Your task to perform on an android device: turn off smart reply in the gmail app Image 0: 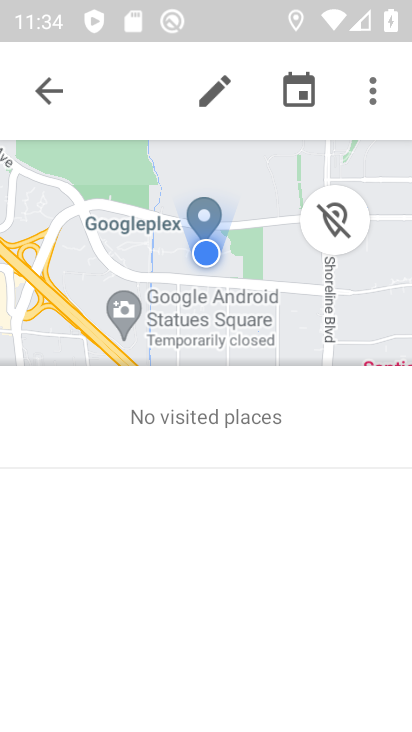
Step 0: press home button
Your task to perform on an android device: turn off smart reply in the gmail app Image 1: 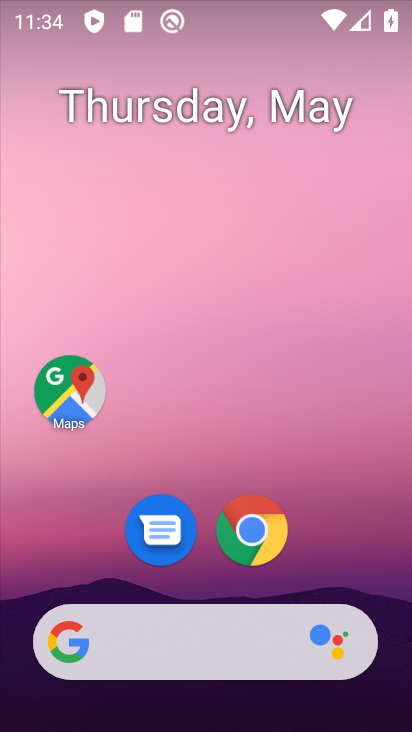
Step 1: drag from (158, 599) to (213, 241)
Your task to perform on an android device: turn off smart reply in the gmail app Image 2: 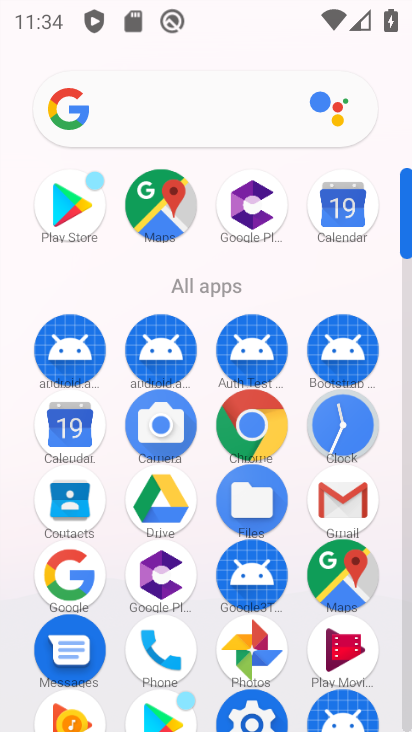
Step 2: click (367, 495)
Your task to perform on an android device: turn off smart reply in the gmail app Image 3: 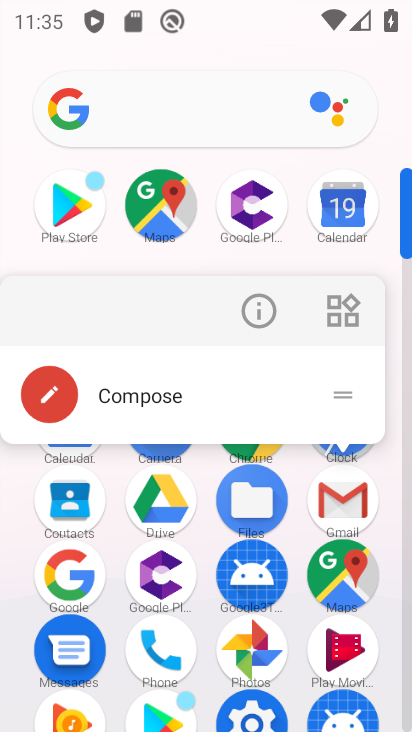
Step 3: click (392, 151)
Your task to perform on an android device: turn off smart reply in the gmail app Image 4: 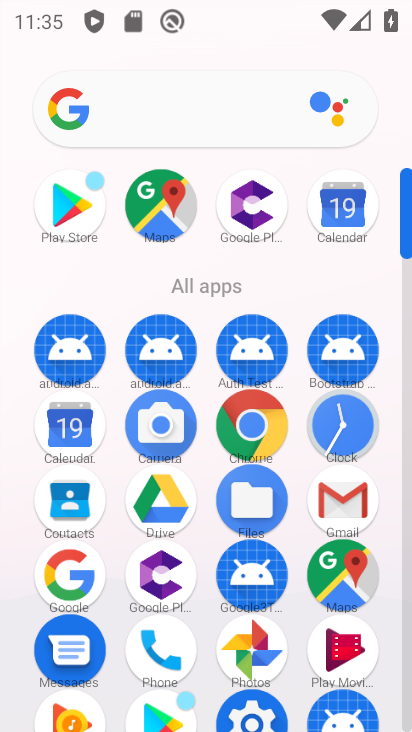
Step 4: click (354, 499)
Your task to perform on an android device: turn off smart reply in the gmail app Image 5: 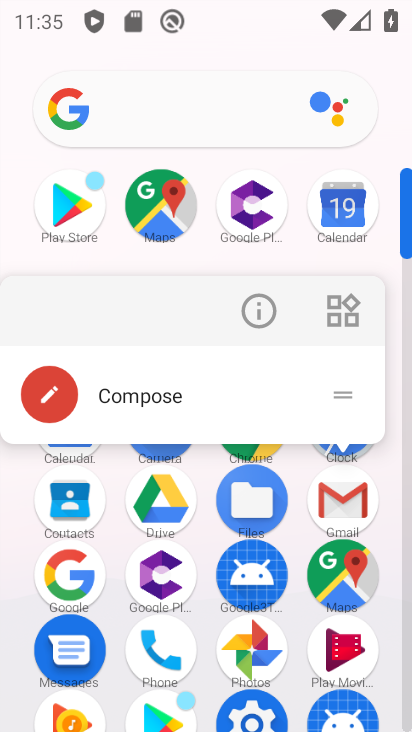
Step 5: click (354, 499)
Your task to perform on an android device: turn off smart reply in the gmail app Image 6: 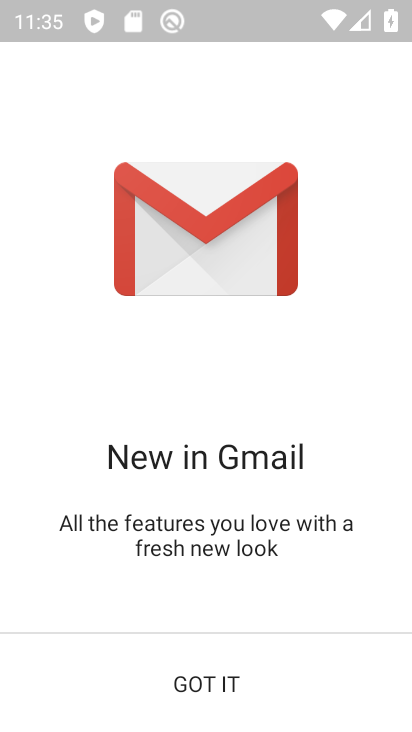
Step 6: click (207, 680)
Your task to perform on an android device: turn off smart reply in the gmail app Image 7: 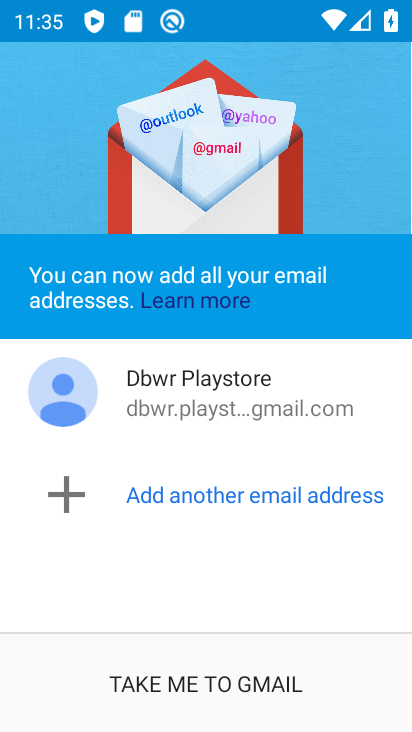
Step 7: click (207, 680)
Your task to perform on an android device: turn off smart reply in the gmail app Image 8: 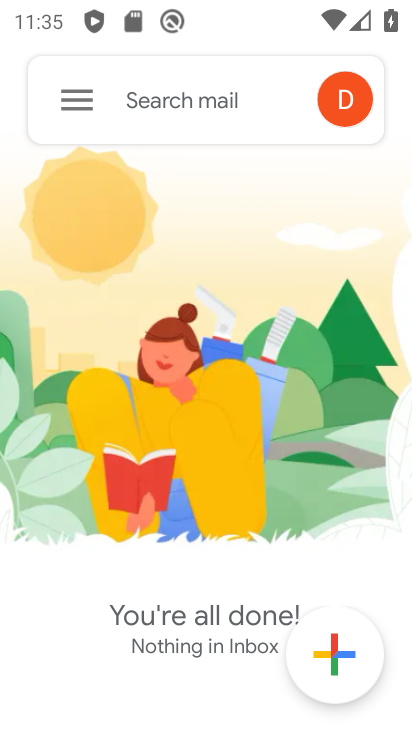
Step 8: click (71, 97)
Your task to perform on an android device: turn off smart reply in the gmail app Image 9: 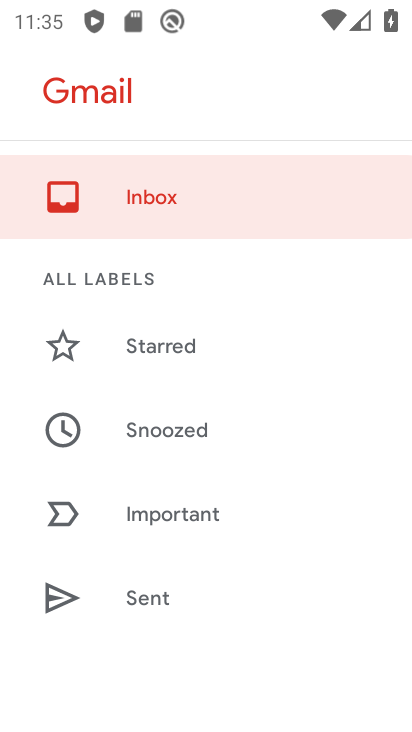
Step 9: drag from (173, 643) to (225, 256)
Your task to perform on an android device: turn off smart reply in the gmail app Image 10: 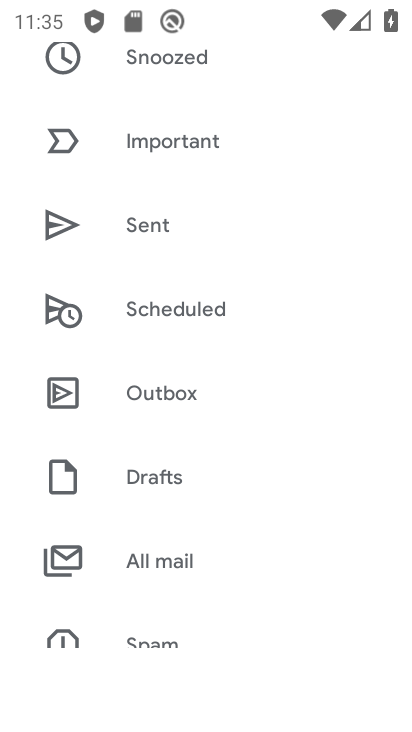
Step 10: drag from (187, 600) to (212, 316)
Your task to perform on an android device: turn off smart reply in the gmail app Image 11: 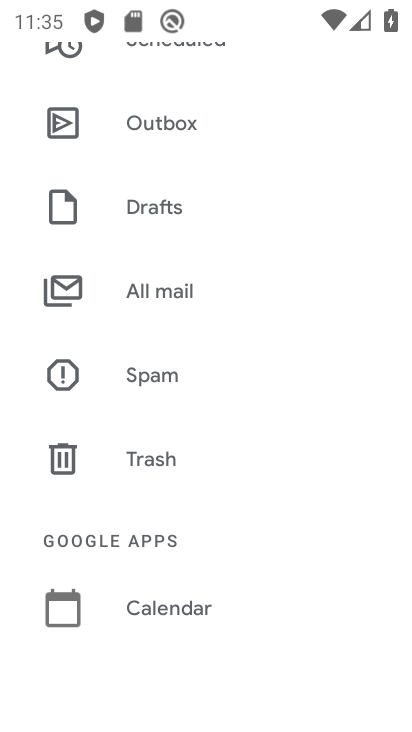
Step 11: drag from (154, 617) to (199, 370)
Your task to perform on an android device: turn off smart reply in the gmail app Image 12: 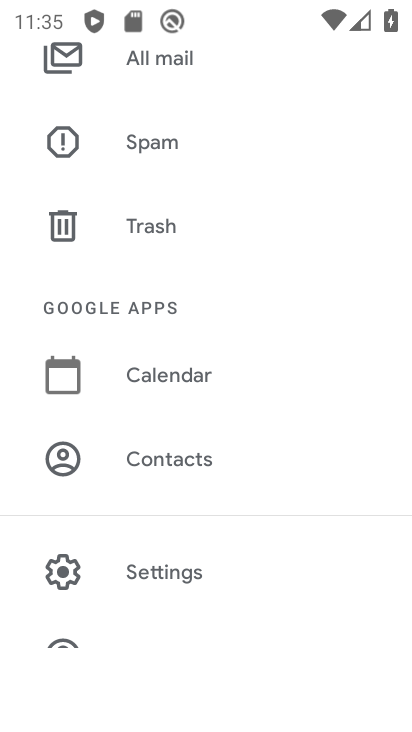
Step 12: click (158, 580)
Your task to perform on an android device: turn off smart reply in the gmail app Image 13: 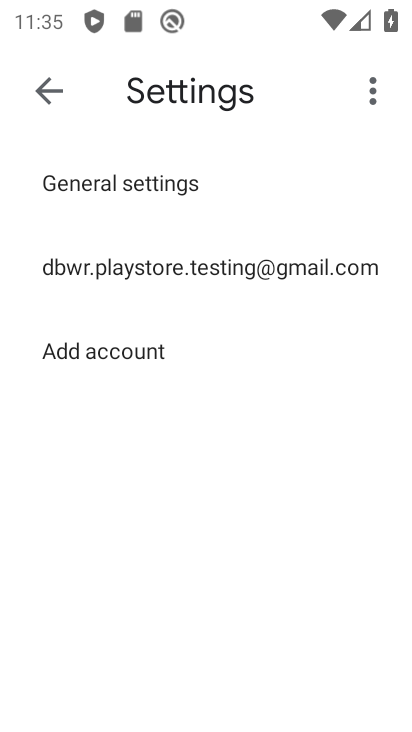
Step 13: click (170, 273)
Your task to perform on an android device: turn off smart reply in the gmail app Image 14: 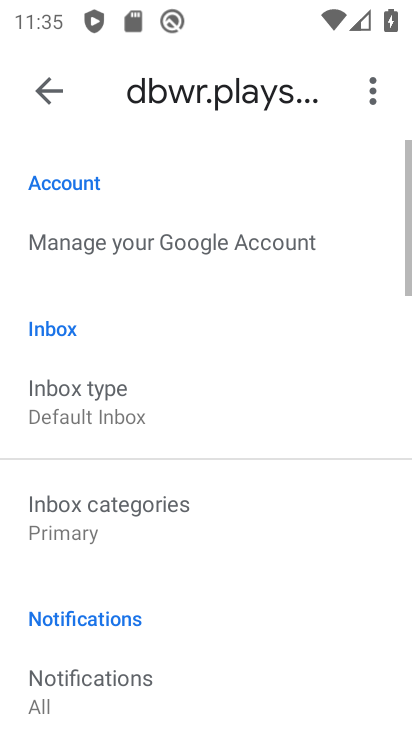
Step 14: drag from (218, 635) to (262, 266)
Your task to perform on an android device: turn off smart reply in the gmail app Image 15: 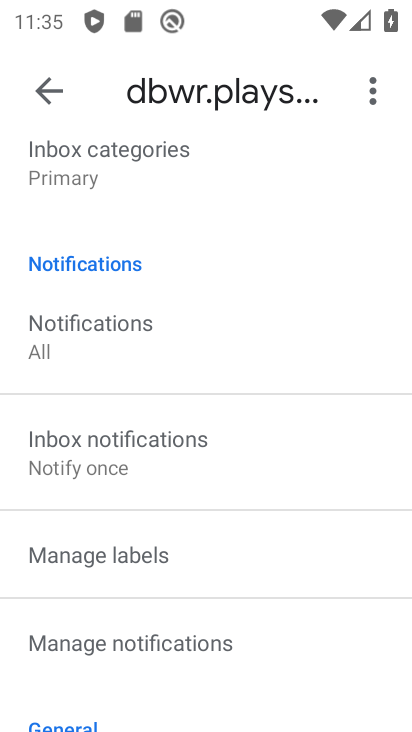
Step 15: drag from (247, 618) to (296, 313)
Your task to perform on an android device: turn off smart reply in the gmail app Image 16: 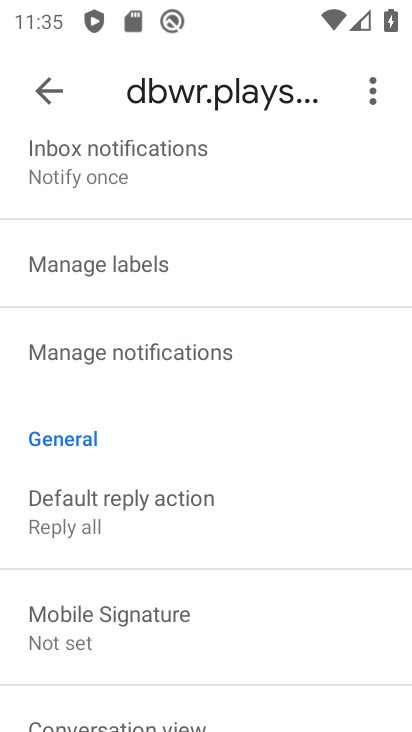
Step 16: drag from (269, 538) to (312, 337)
Your task to perform on an android device: turn off smart reply in the gmail app Image 17: 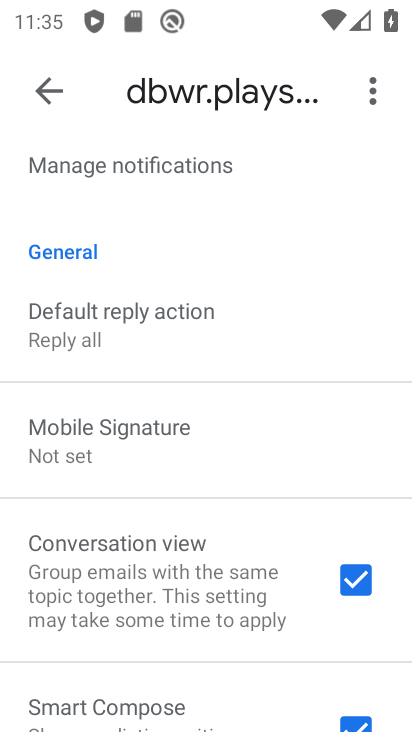
Step 17: drag from (310, 520) to (348, 350)
Your task to perform on an android device: turn off smart reply in the gmail app Image 18: 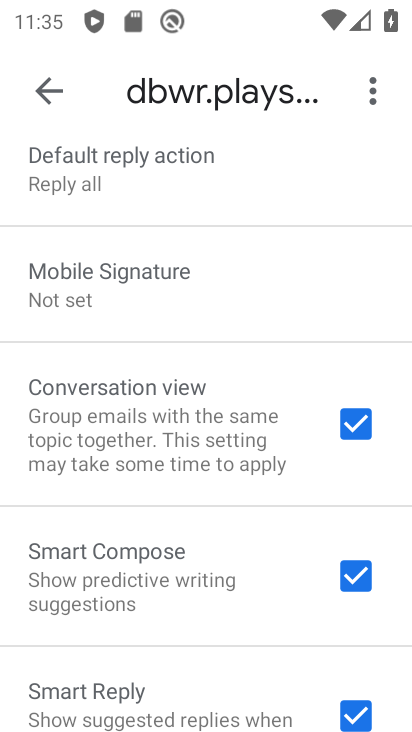
Step 18: drag from (283, 637) to (305, 327)
Your task to perform on an android device: turn off smart reply in the gmail app Image 19: 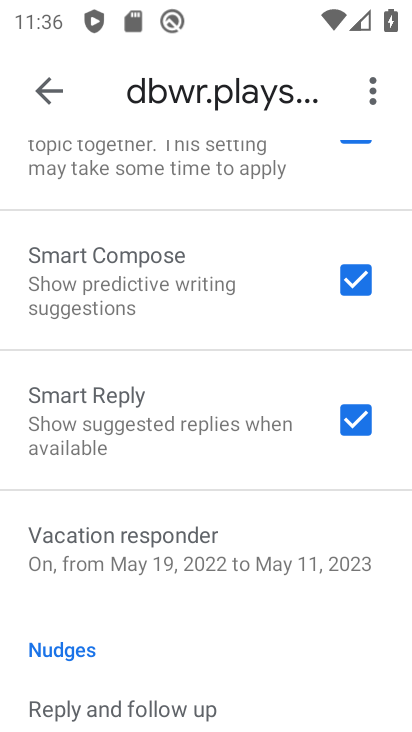
Step 19: click (360, 420)
Your task to perform on an android device: turn off smart reply in the gmail app Image 20: 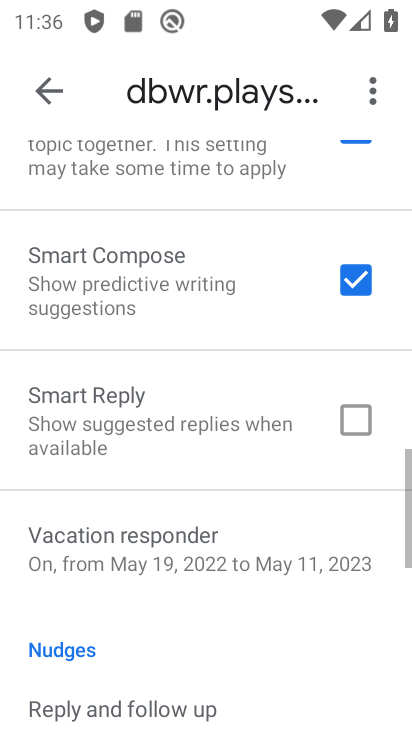
Step 20: task complete